Your task to perform on an android device: Search for dell xps on target, select the first entry, add it to the cart, then select checkout. Image 0: 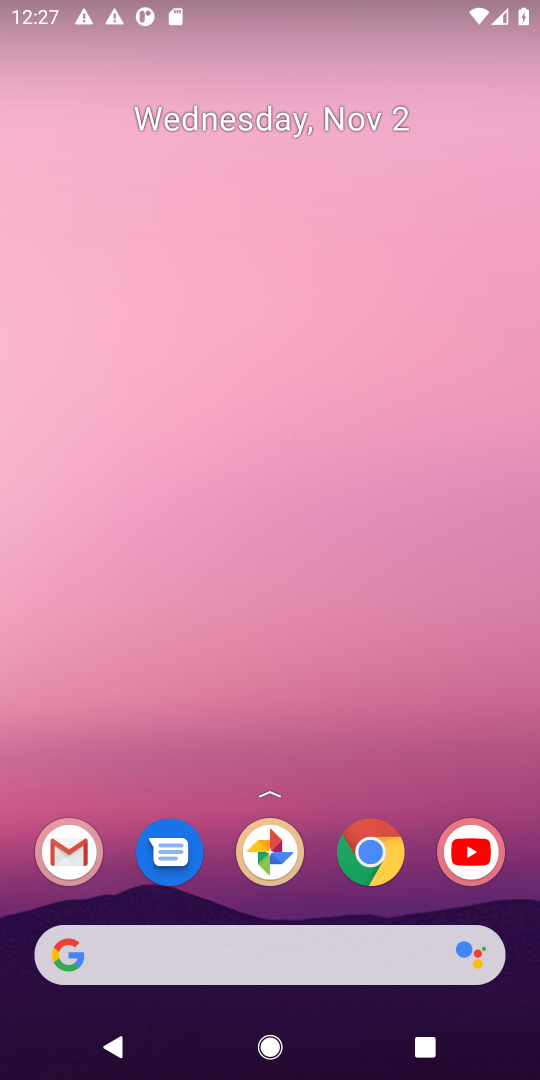
Step 0: click (68, 954)
Your task to perform on an android device: Search for dell xps on target, select the first entry, add it to the cart, then select checkout. Image 1: 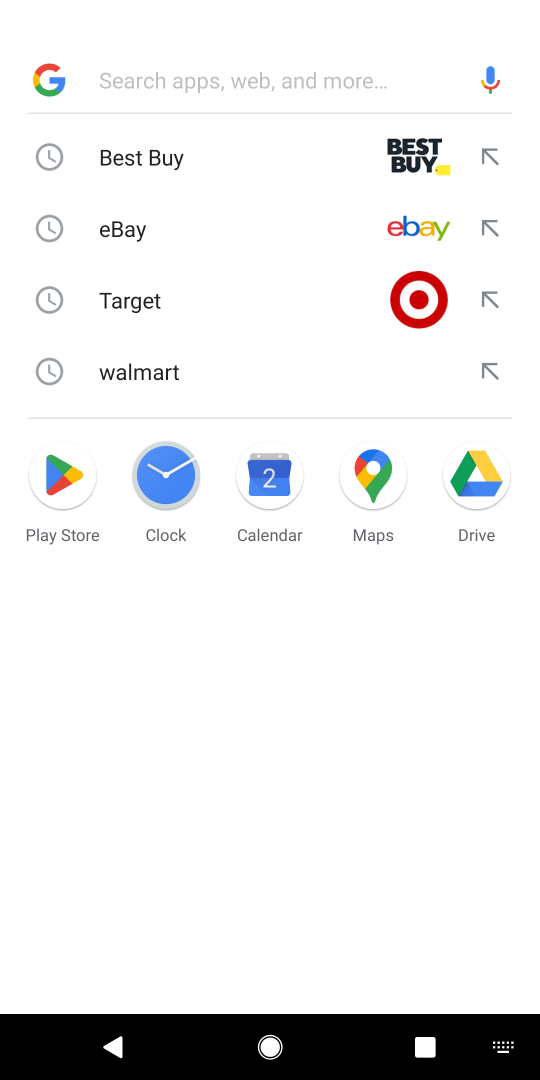
Step 1: click (414, 305)
Your task to perform on an android device: Search for dell xps on target, select the first entry, add it to the cart, then select checkout. Image 2: 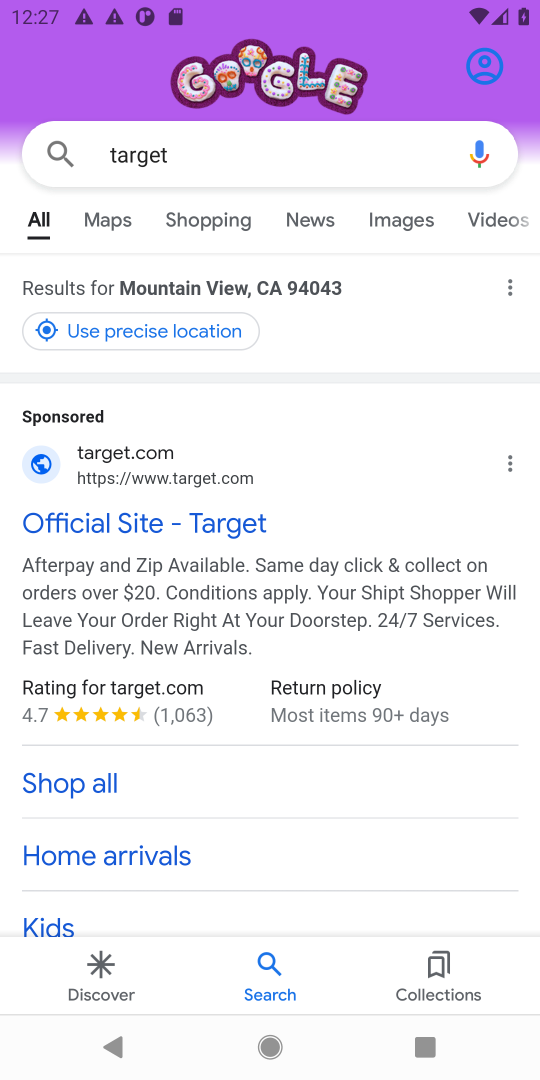
Step 2: drag from (234, 788) to (263, 262)
Your task to perform on an android device: Search for dell xps on target, select the first entry, add it to the cart, then select checkout. Image 3: 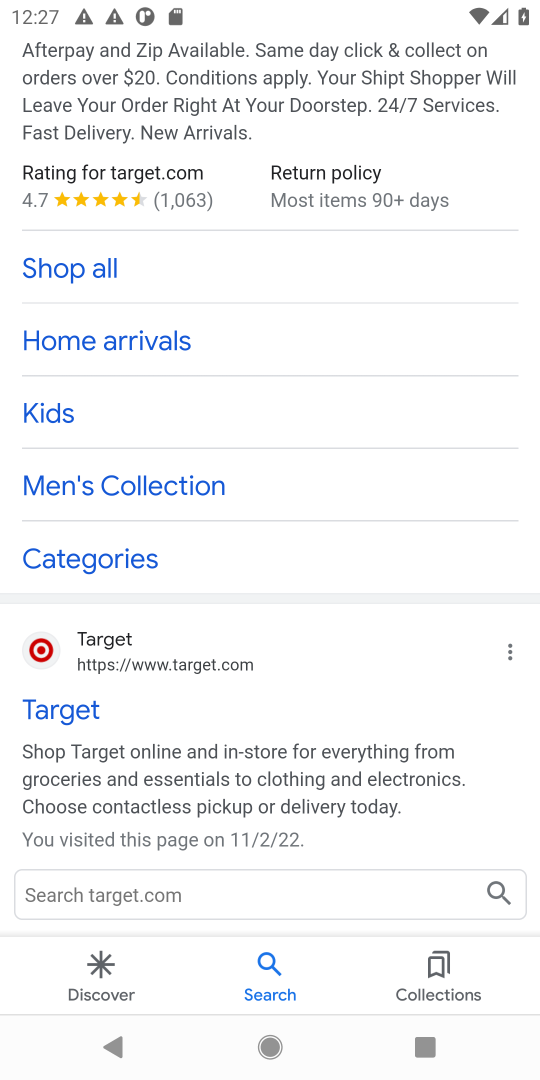
Step 3: click (66, 710)
Your task to perform on an android device: Search for dell xps on target, select the first entry, add it to the cart, then select checkout. Image 4: 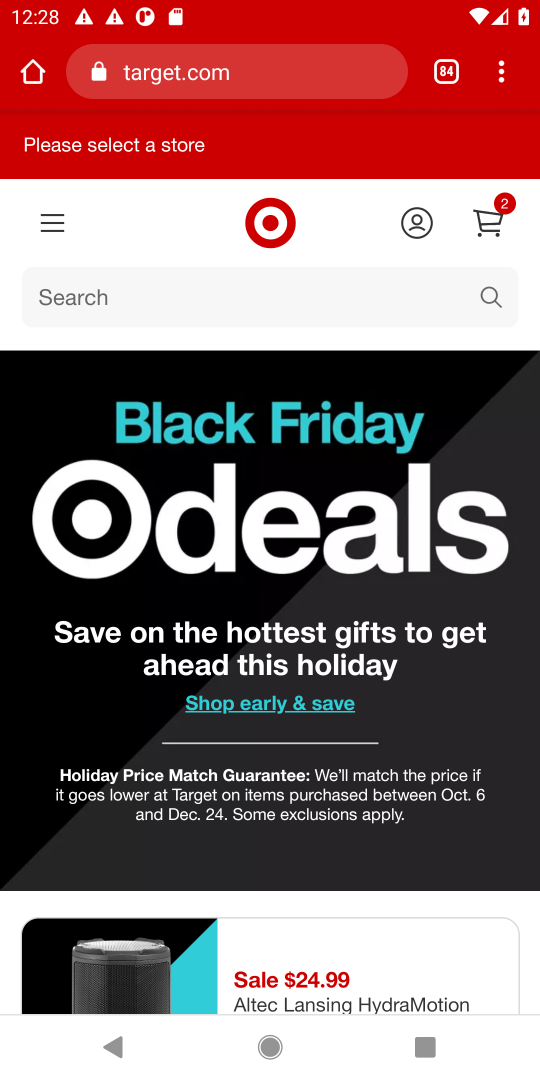
Step 4: click (217, 311)
Your task to perform on an android device: Search for dell xps on target, select the first entry, add it to the cart, then select checkout. Image 5: 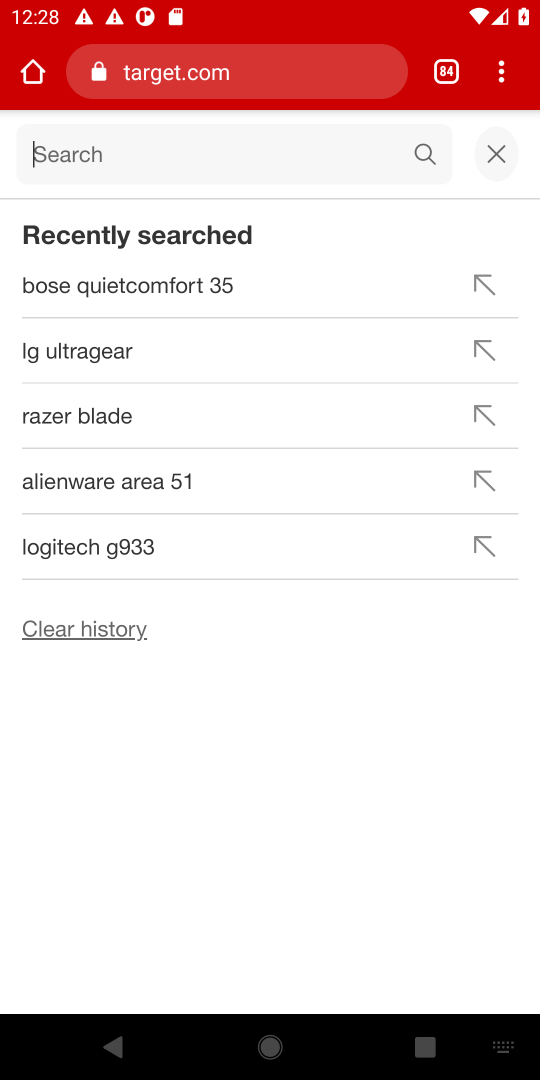
Step 5: type "dell xps "
Your task to perform on an android device: Search for dell xps on target, select the first entry, add it to the cart, then select checkout. Image 6: 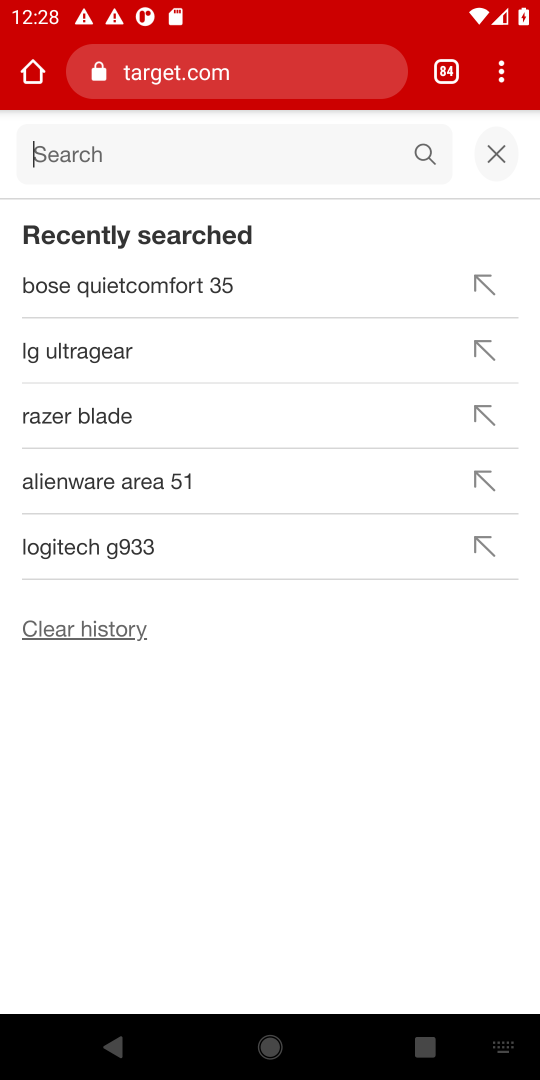
Step 6: click (100, 161)
Your task to perform on an android device: Search for dell xps on target, select the first entry, add it to the cart, then select checkout. Image 7: 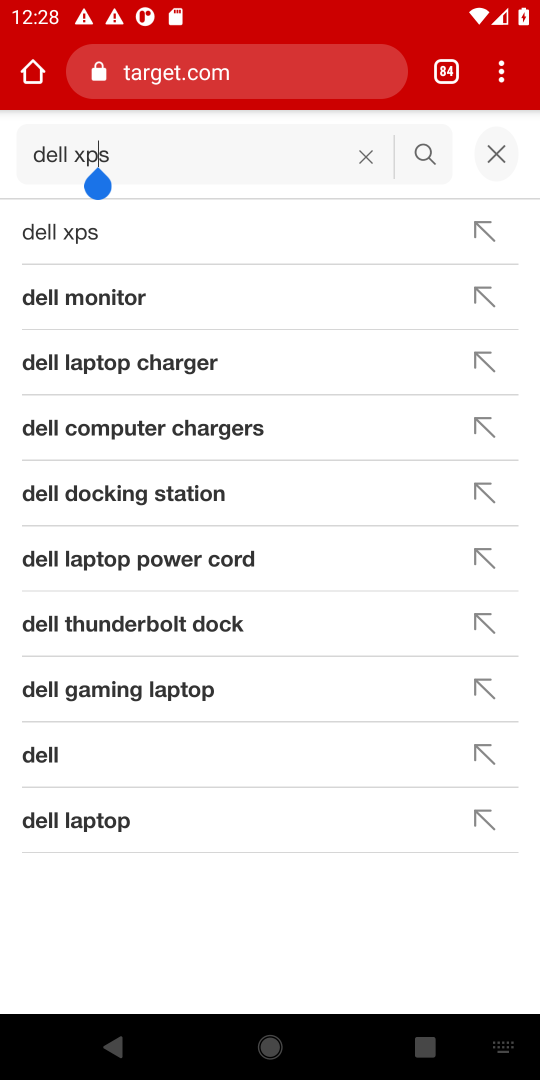
Step 7: click (440, 154)
Your task to perform on an android device: Search for dell xps on target, select the first entry, add it to the cart, then select checkout. Image 8: 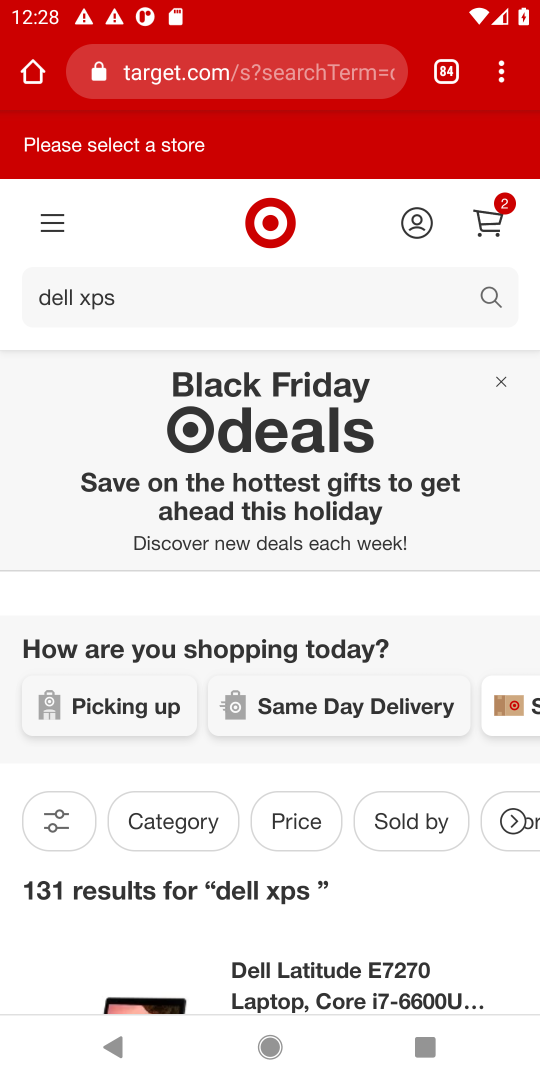
Step 8: drag from (506, 928) to (489, 265)
Your task to perform on an android device: Search for dell xps on target, select the first entry, add it to the cart, then select checkout. Image 9: 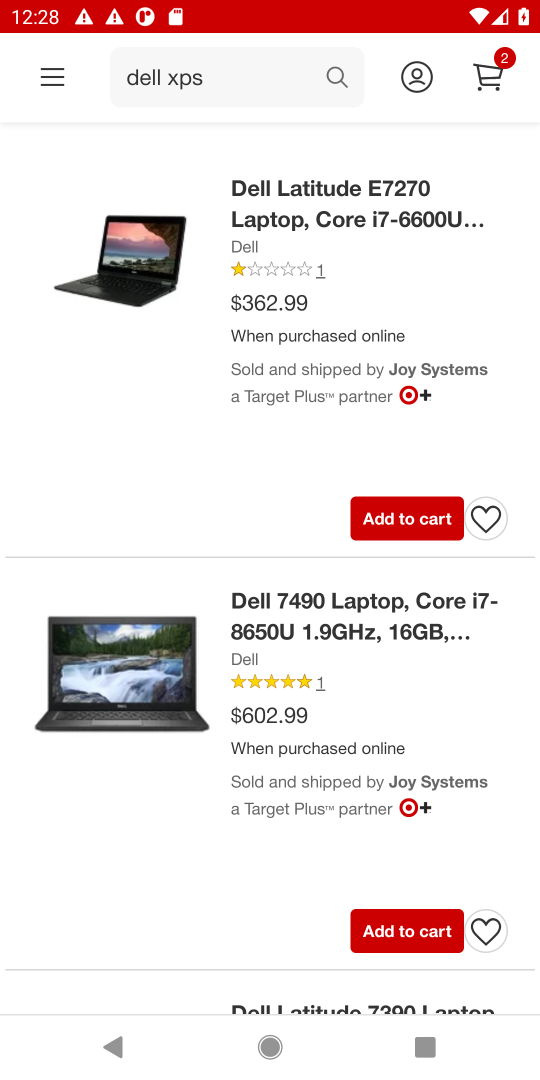
Step 9: drag from (393, 776) to (445, 406)
Your task to perform on an android device: Search for dell xps on target, select the first entry, add it to the cart, then select checkout. Image 10: 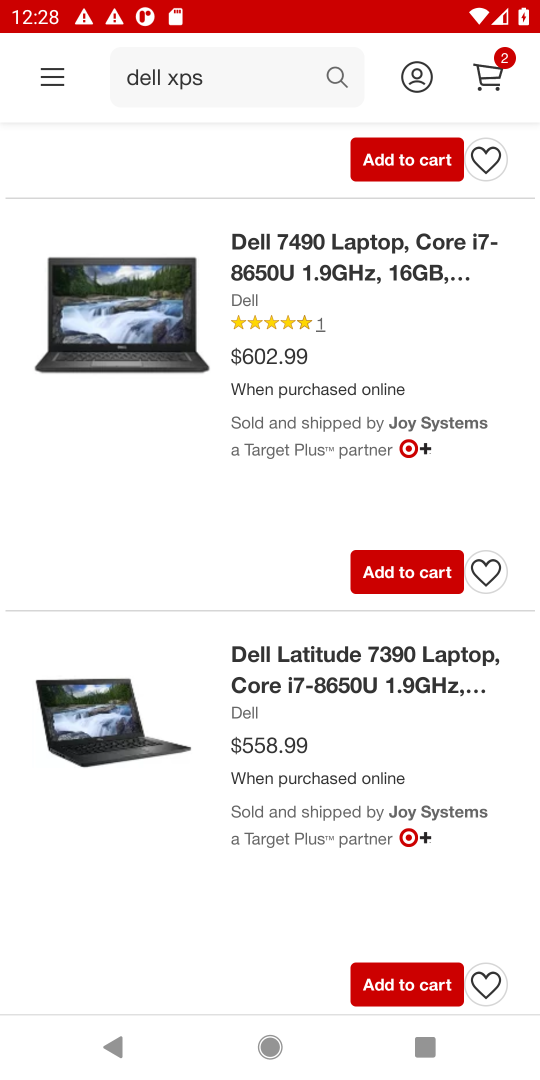
Step 10: drag from (501, 298) to (473, 651)
Your task to perform on an android device: Search for dell xps on target, select the first entry, add it to the cart, then select checkout. Image 11: 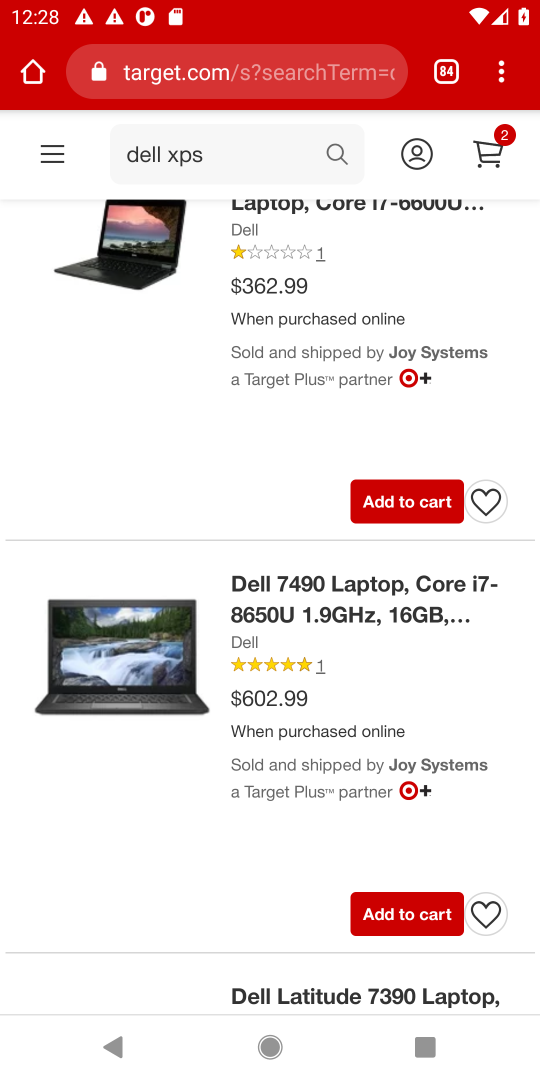
Step 11: drag from (382, 280) to (381, 759)
Your task to perform on an android device: Search for dell xps on target, select the first entry, add it to the cart, then select checkout. Image 12: 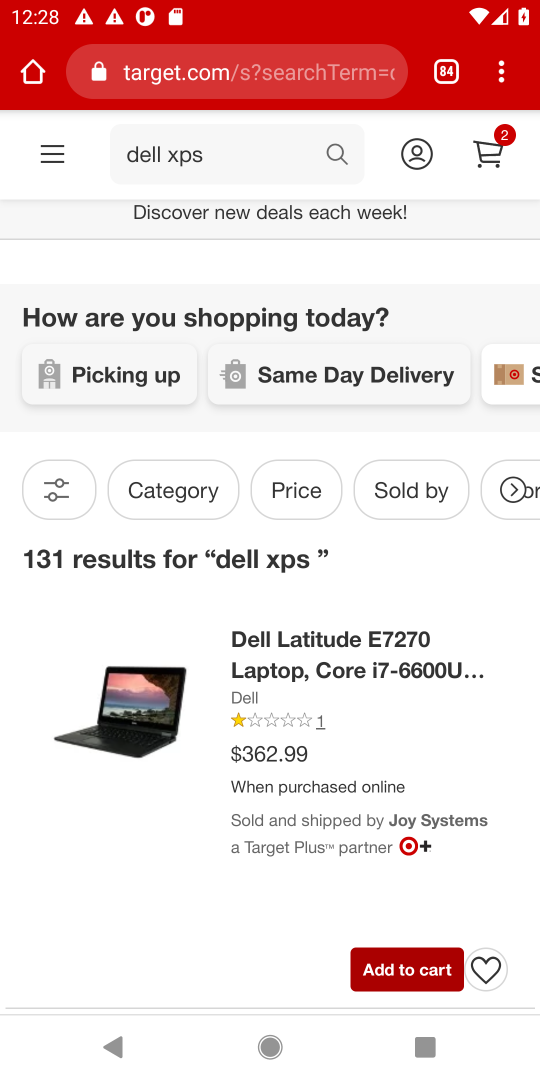
Step 12: click (408, 966)
Your task to perform on an android device: Search for dell xps on target, select the first entry, add it to the cart, then select checkout. Image 13: 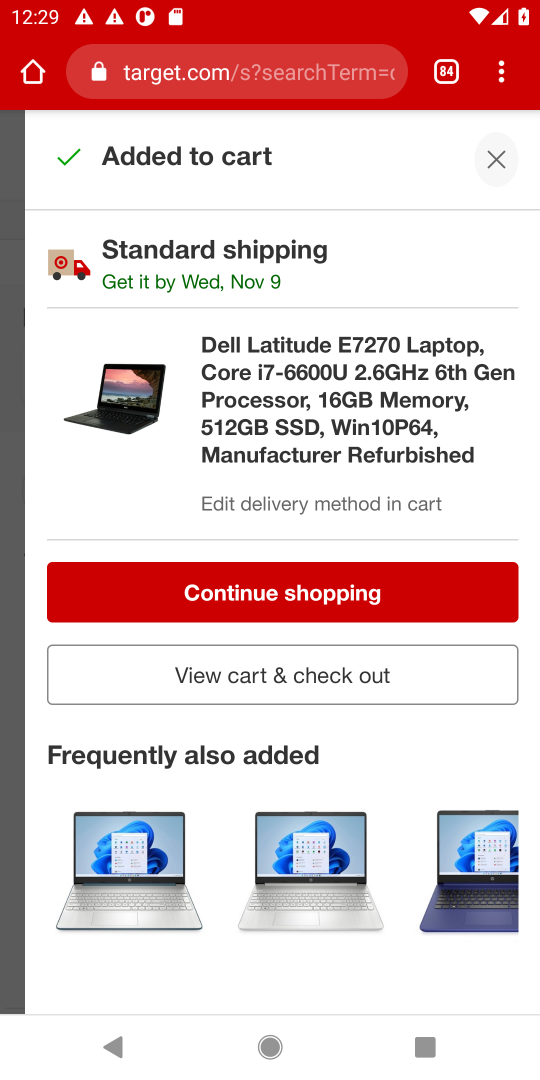
Step 13: click (353, 671)
Your task to perform on an android device: Search for dell xps on target, select the first entry, add it to the cart, then select checkout. Image 14: 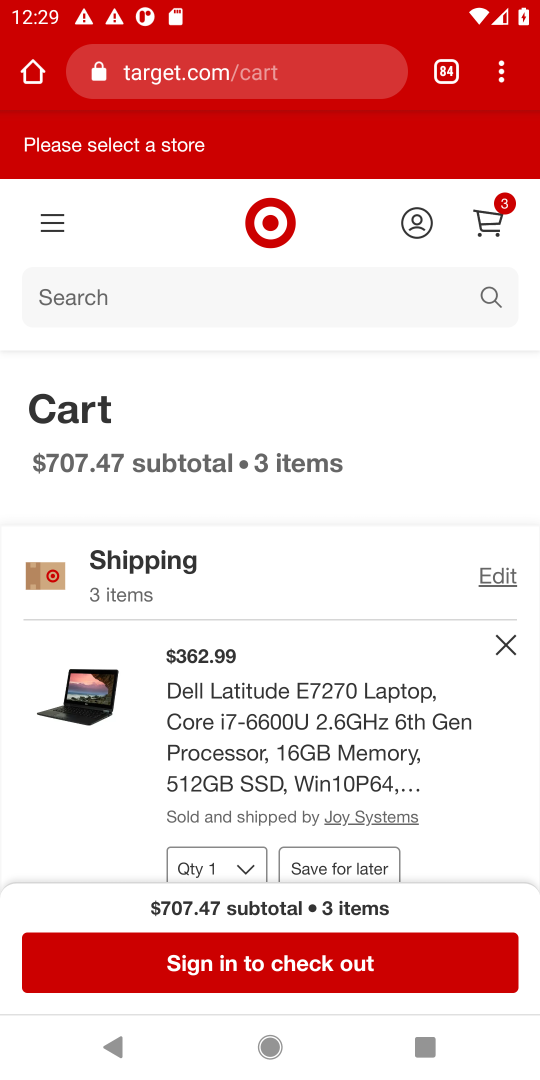
Step 14: click (332, 950)
Your task to perform on an android device: Search for dell xps on target, select the first entry, add it to the cart, then select checkout. Image 15: 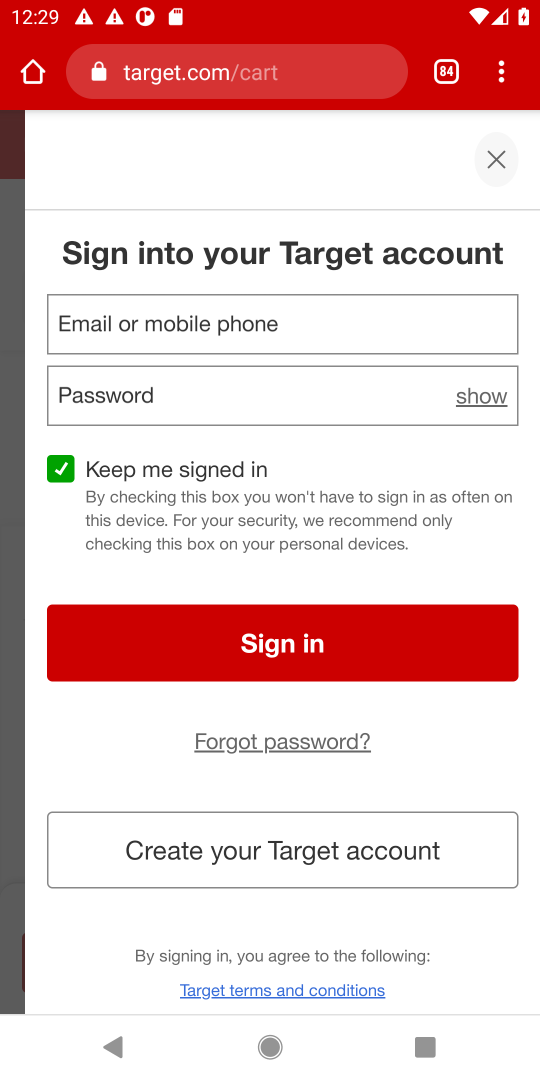
Step 15: task complete